Your task to perform on an android device: Open Google Chrome Image 0: 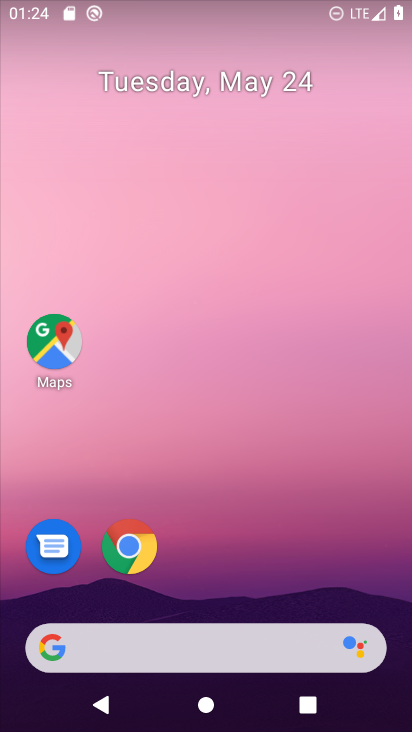
Step 0: drag from (212, 660) to (238, 188)
Your task to perform on an android device: Open Google Chrome Image 1: 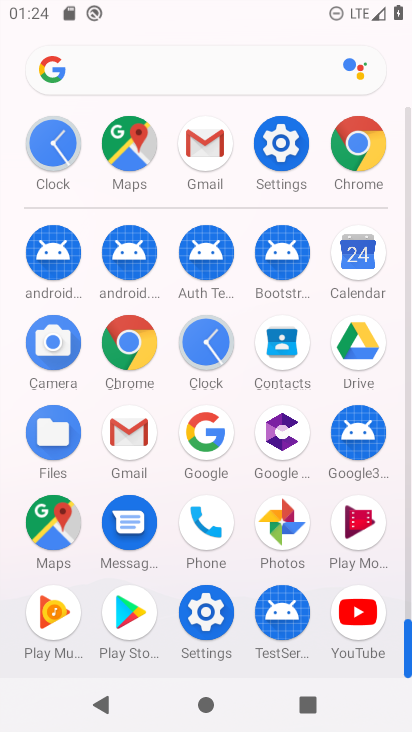
Step 1: click (148, 346)
Your task to perform on an android device: Open Google Chrome Image 2: 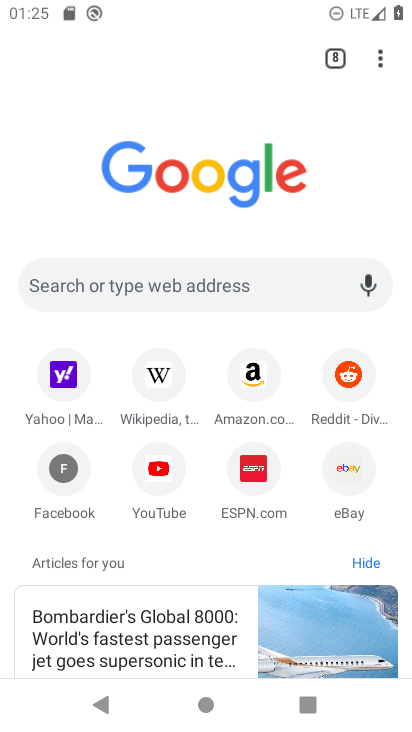
Step 2: task complete